Your task to perform on an android device: Open settings Image 0: 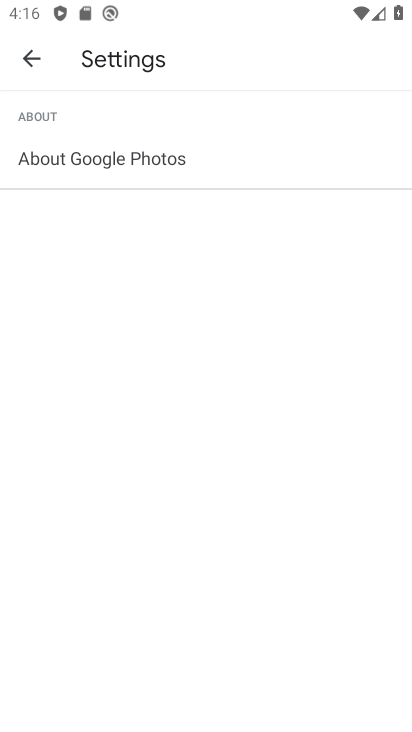
Step 0: press home button
Your task to perform on an android device: Open settings Image 1: 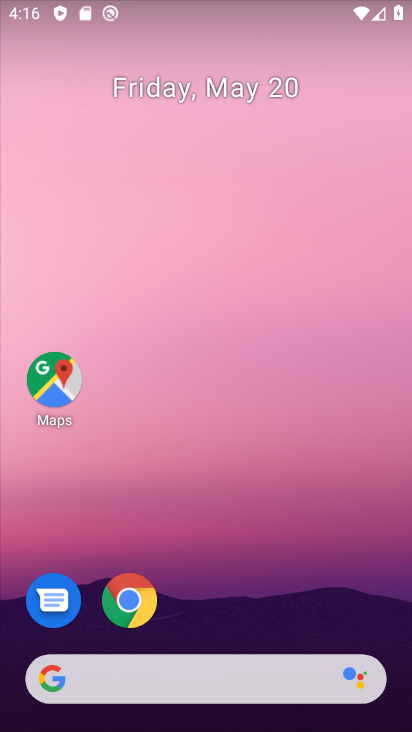
Step 1: drag from (237, 552) to (206, 58)
Your task to perform on an android device: Open settings Image 2: 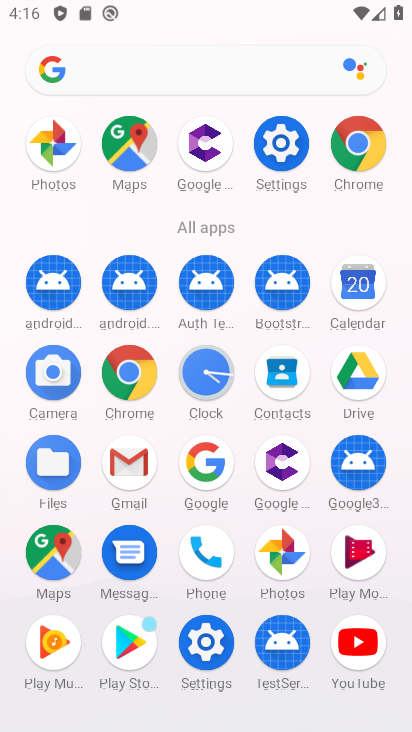
Step 2: click (267, 143)
Your task to perform on an android device: Open settings Image 3: 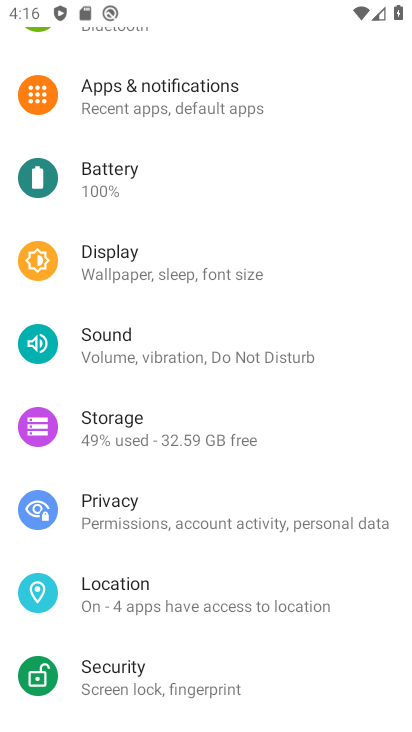
Step 3: task complete